Your task to perform on an android device: Open notification settings Image 0: 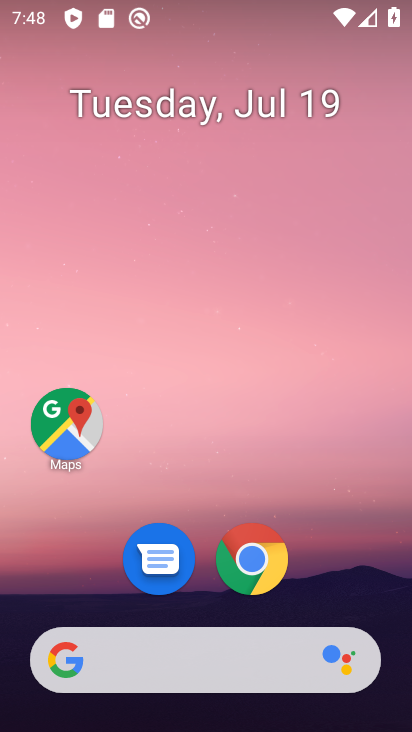
Step 0: drag from (103, 526) to (228, 34)
Your task to perform on an android device: Open notification settings Image 1: 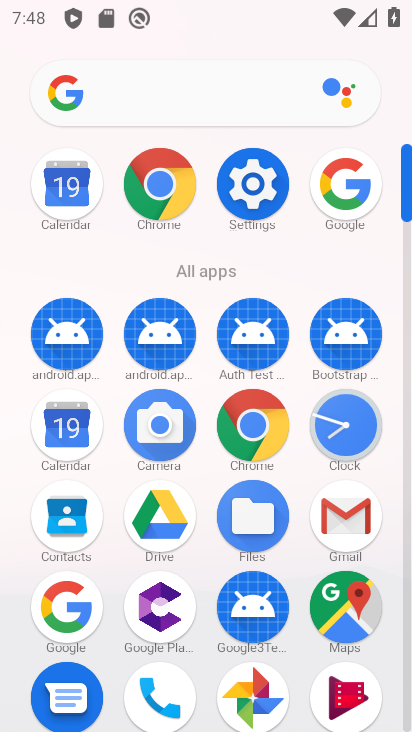
Step 1: click (235, 167)
Your task to perform on an android device: Open notification settings Image 2: 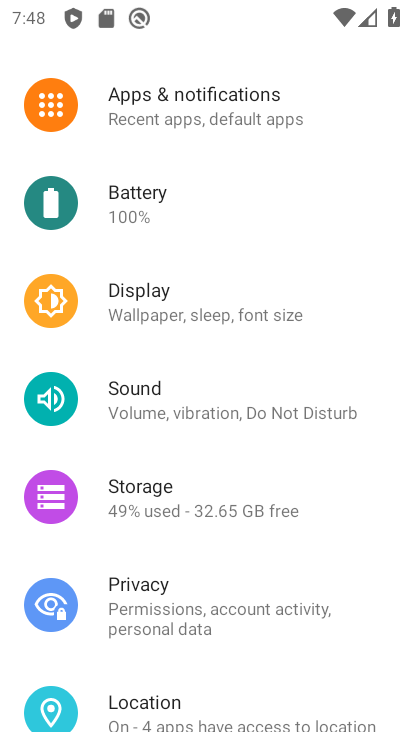
Step 2: click (240, 111)
Your task to perform on an android device: Open notification settings Image 3: 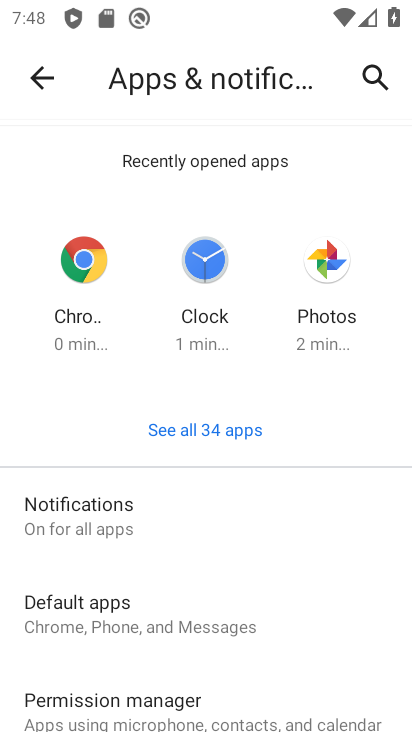
Step 3: click (122, 502)
Your task to perform on an android device: Open notification settings Image 4: 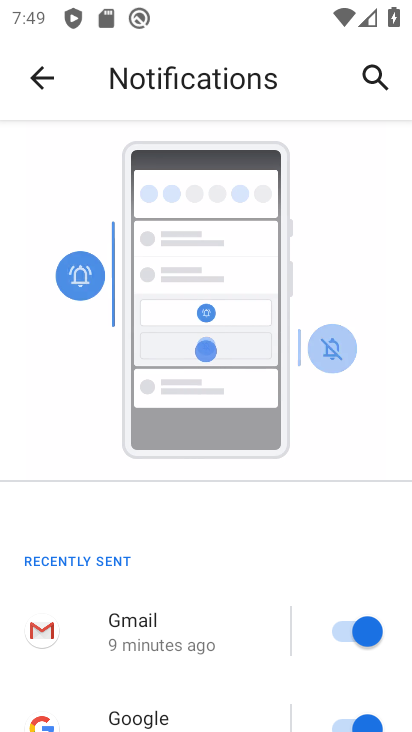
Step 4: task complete